Your task to perform on an android device: Open the map Image 0: 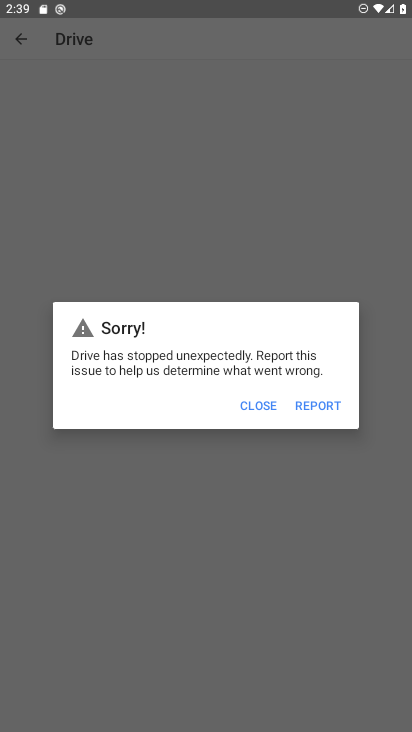
Step 0: press home button
Your task to perform on an android device: Open the map Image 1: 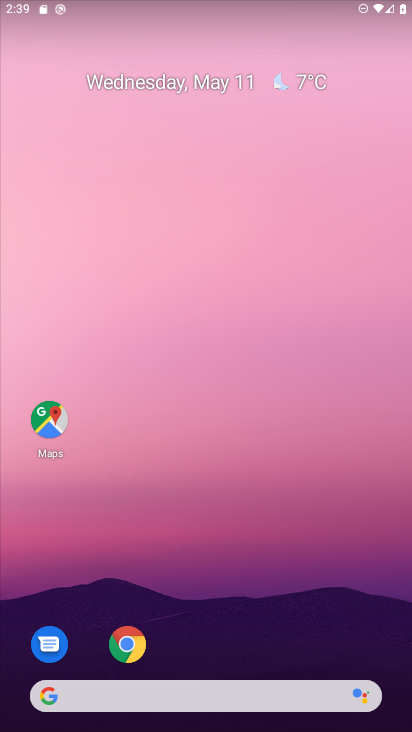
Step 1: click (42, 423)
Your task to perform on an android device: Open the map Image 2: 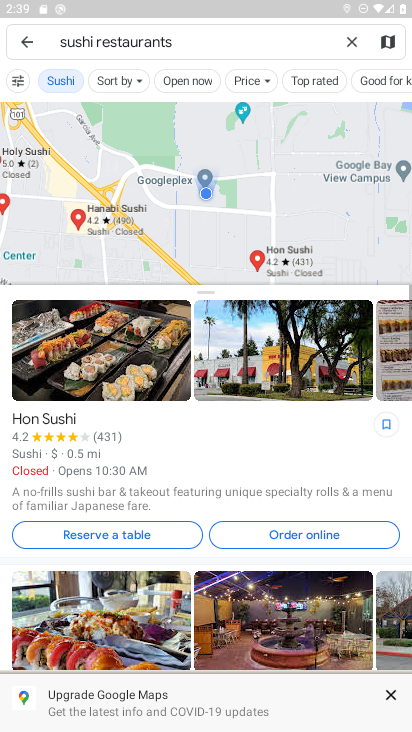
Step 2: task complete